Your task to perform on an android device: move an email to a new category in the gmail app Image 0: 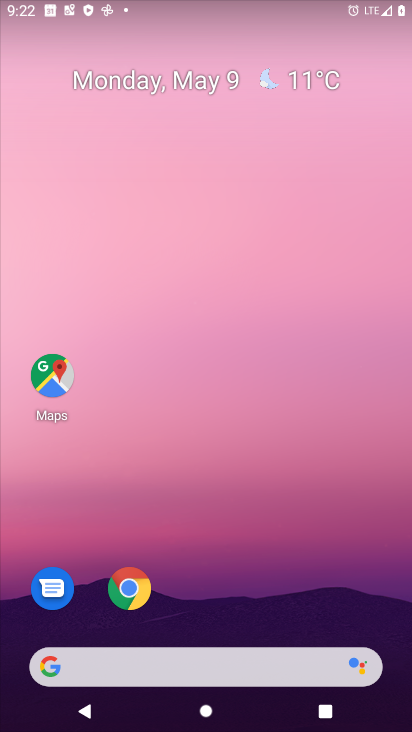
Step 0: drag from (305, 606) to (245, 101)
Your task to perform on an android device: move an email to a new category in the gmail app Image 1: 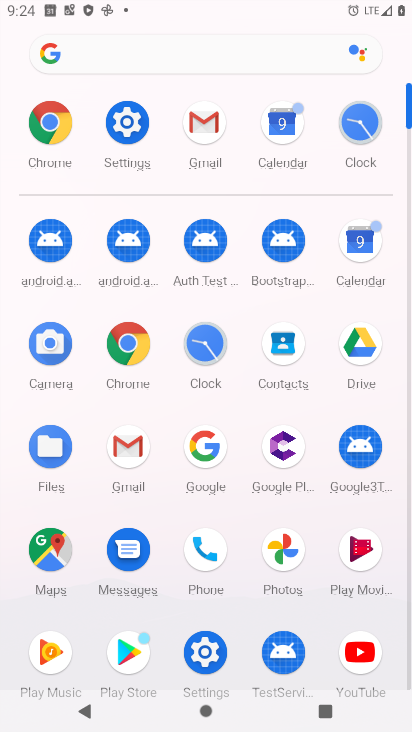
Step 1: click (118, 445)
Your task to perform on an android device: move an email to a new category in the gmail app Image 2: 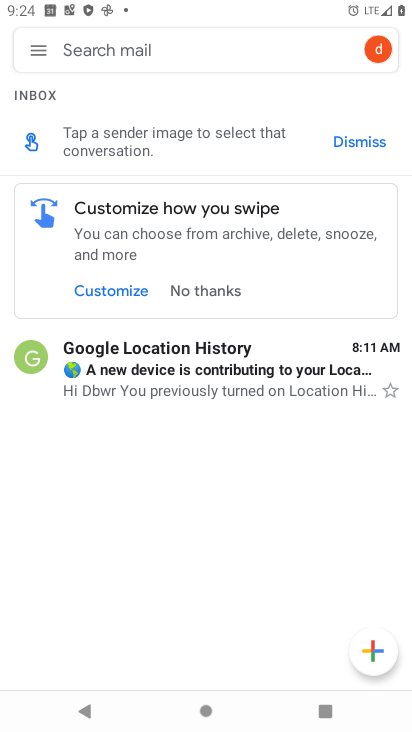
Step 2: click (171, 386)
Your task to perform on an android device: move an email to a new category in the gmail app Image 3: 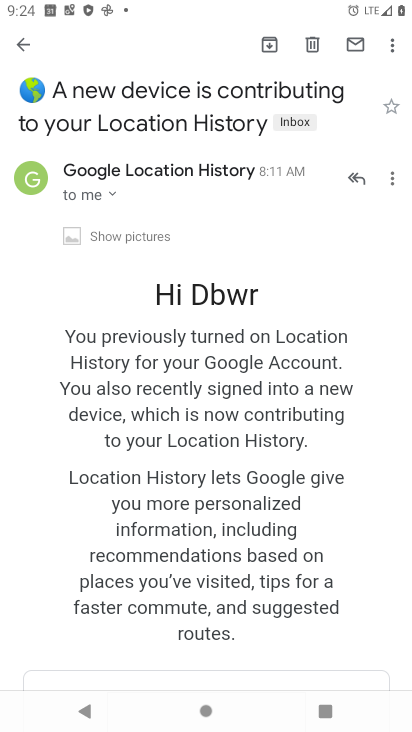
Step 3: click (386, 48)
Your task to perform on an android device: move an email to a new category in the gmail app Image 4: 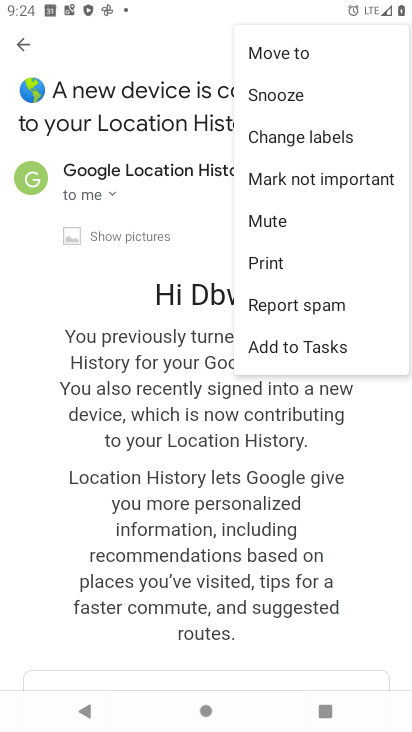
Step 4: click (338, 56)
Your task to perform on an android device: move an email to a new category in the gmail app Image 5: 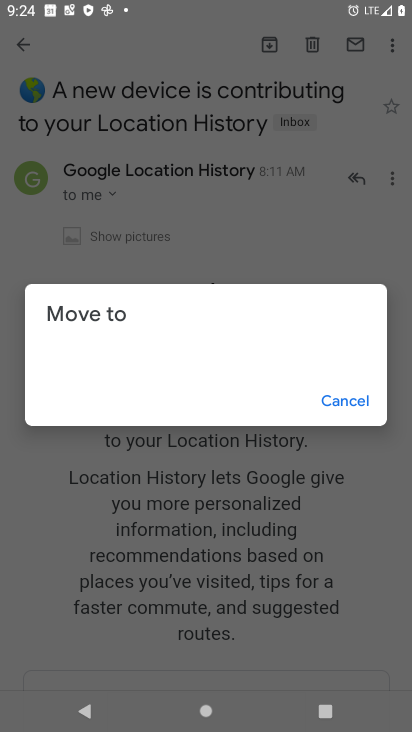
Step 5: task complete